Your task to perform on an android device: clear history in the chrome app Image 0: 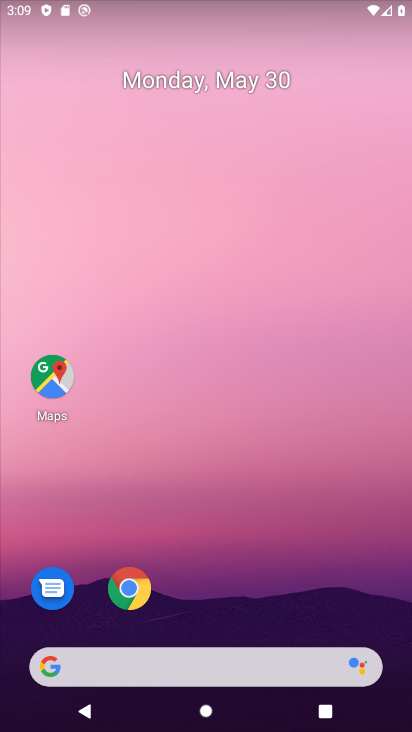
Step 0: click (126, 588)
Your task to perform on an android device: clear history in the chrome app Image 1: 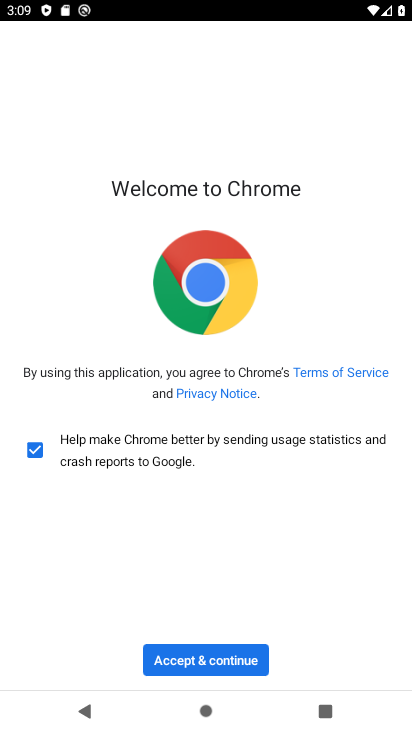
Step 1: click (215, 657)
Your task to perform on an android device: clear history in the chrome app Image 2: 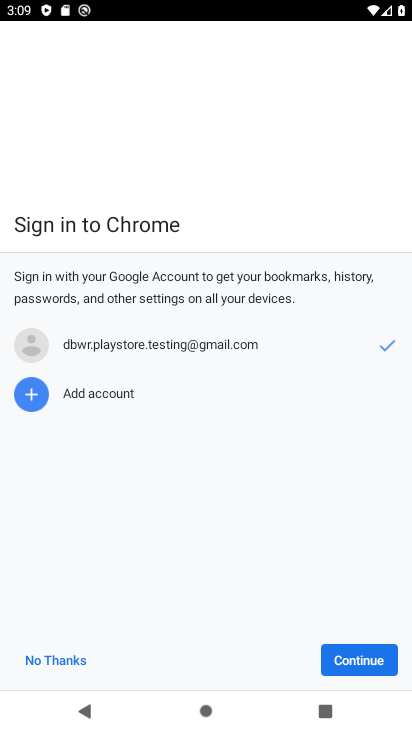
Step 2: click (360, 657)
Your task to perform on an android device: clear history in the chrome app Image 3: 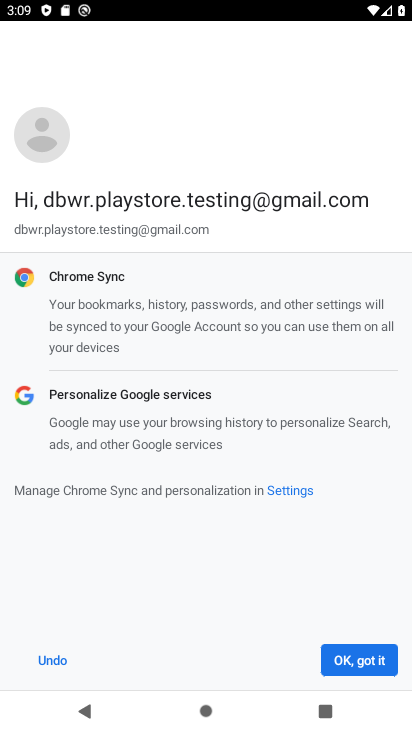
Step 3: click (360, 657)
Your task to perform on an android device: clear history in the chrome app Image 4: 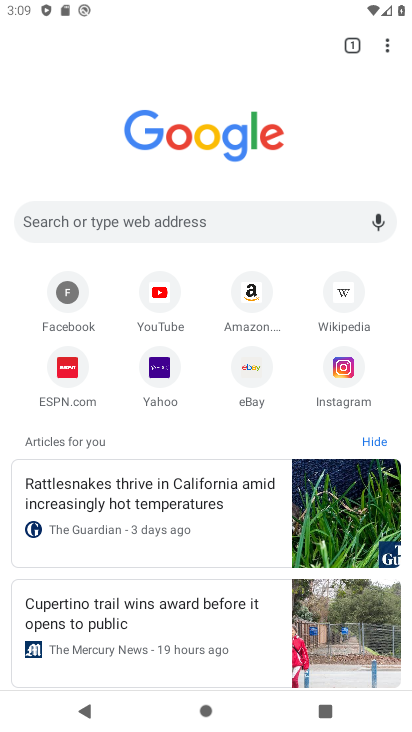
Step 4: click (385, 50)
Your task to perform on an android device: clear history in the chrome app Image 5: 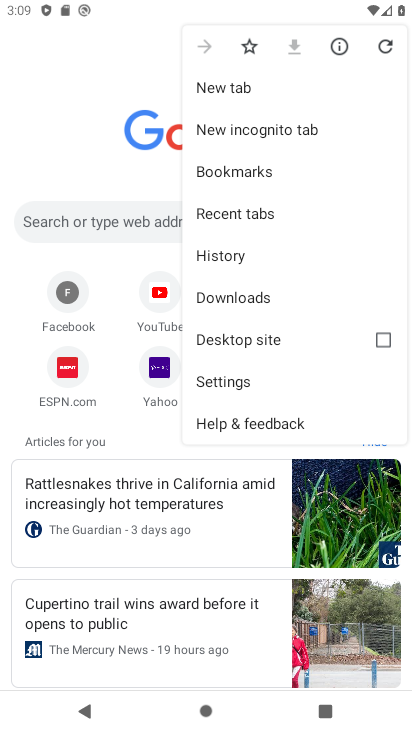
Step 5: click (231, 247)
Your task to perform on an android device: clear history in the chrome app Image 6: 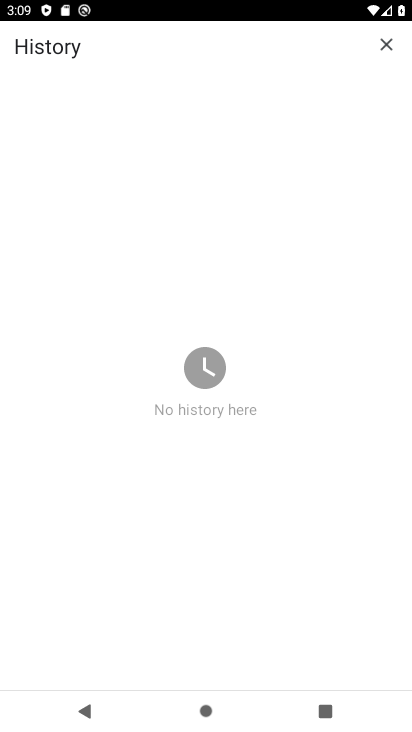
Step 6: task complete